Your task to perform on an android device: Open calendar and show me the third week of next month Image 0: 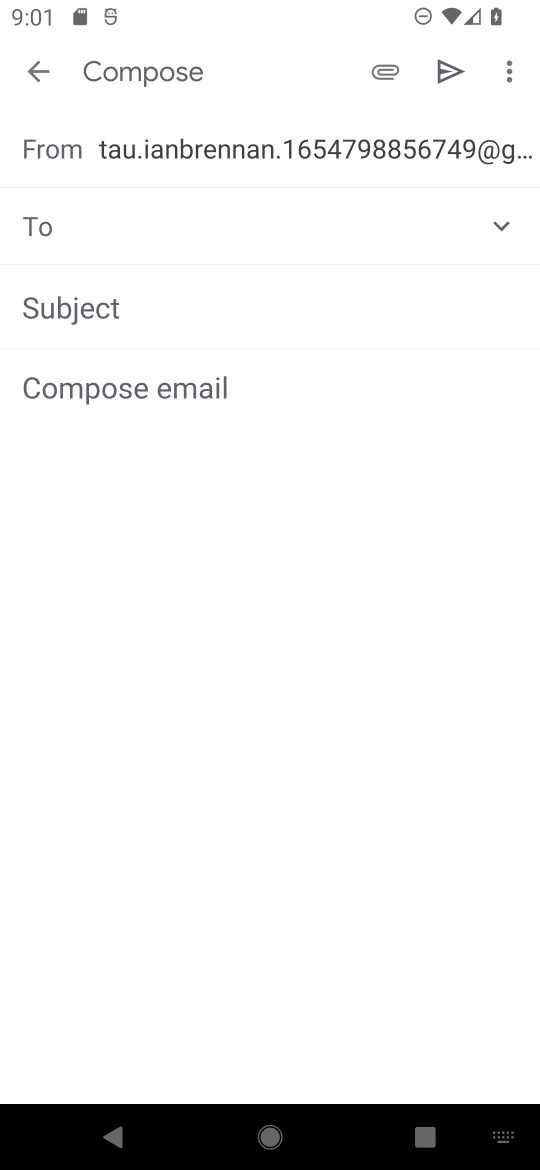
Step 0: press home button
Your task to perform on an android device: Open calendar and show me the third week of next month Image 1: 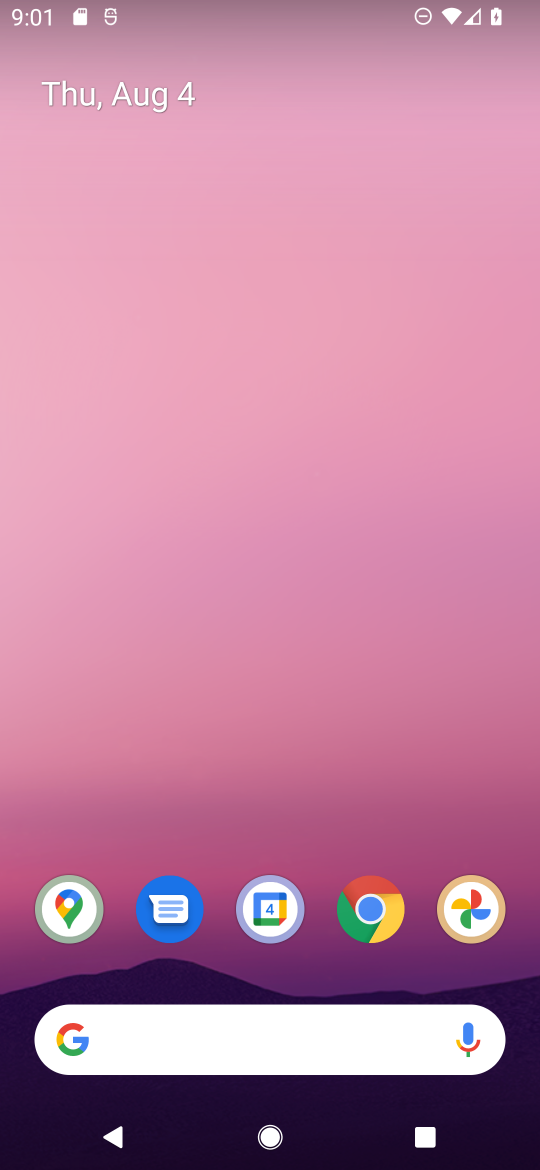
Step 1: drag from (320, 794) to (402, 227)
Your task to perform on an android device: Open calendar and show me the third week of next month Image 2: 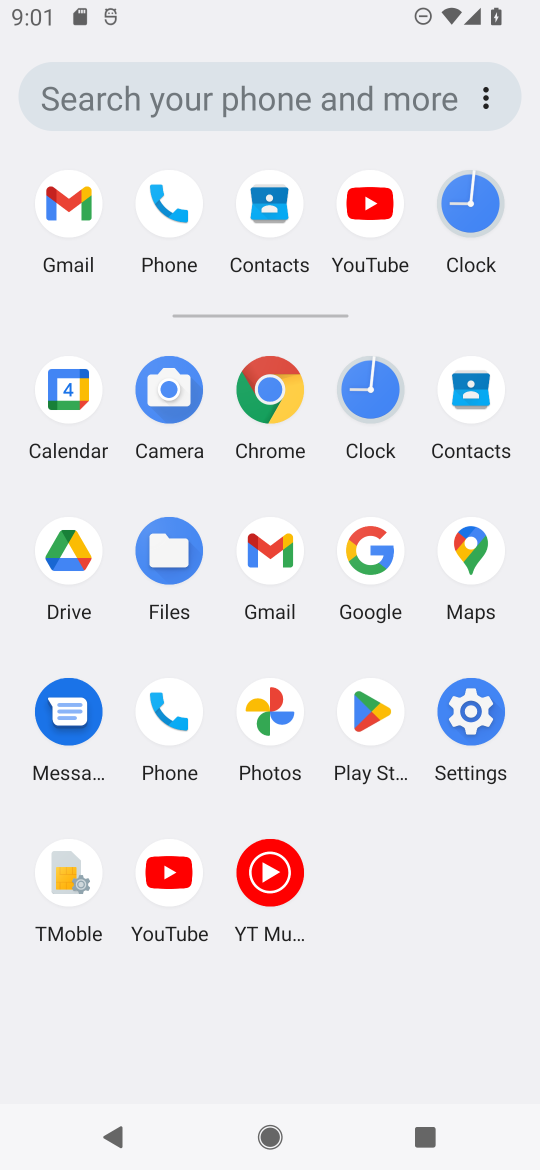
Step 2: click (73, 401)
Your task to perform on an android device: Open calendar and show me the third week of next month Image 3: 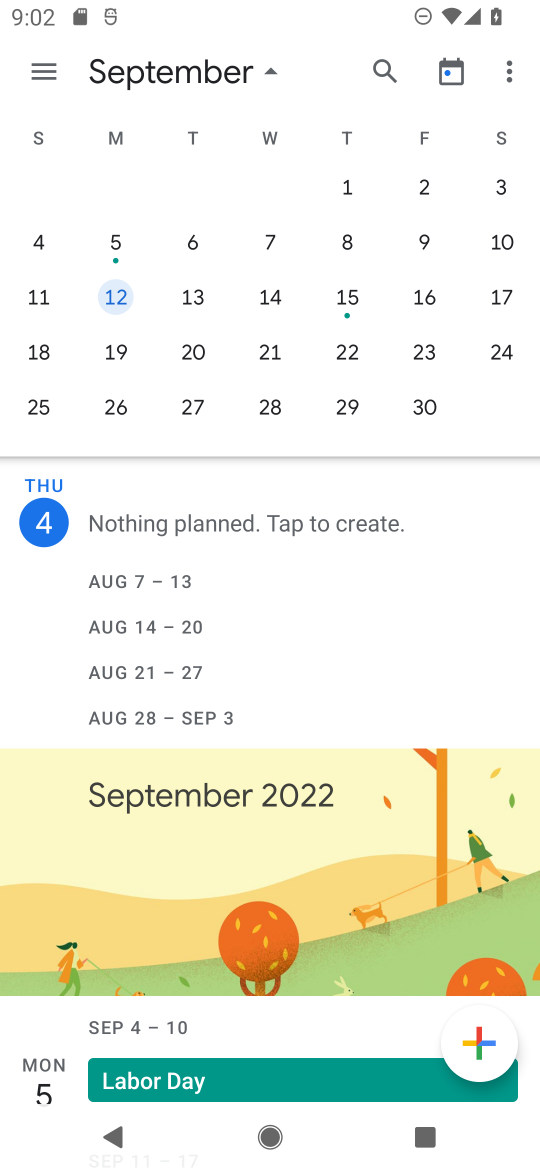
Step 3: click (110, 355)
Your task to perform on an android device: Open calendar and show me the third week of next month Image 4: 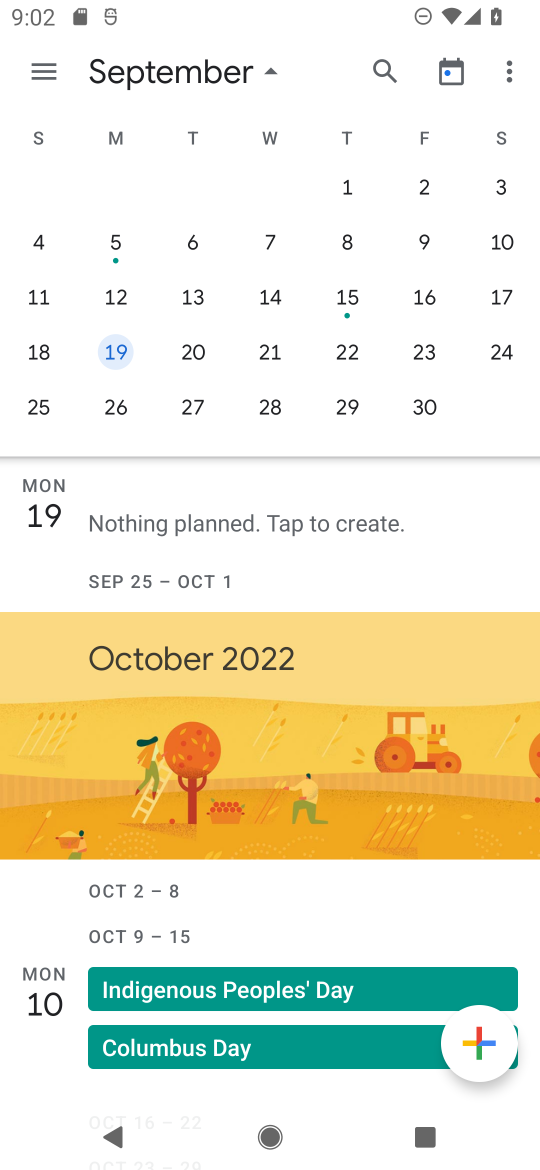
Step 4: task complete